Your task to perform on an android device: toggle show notifications on the lock screen Image 0: 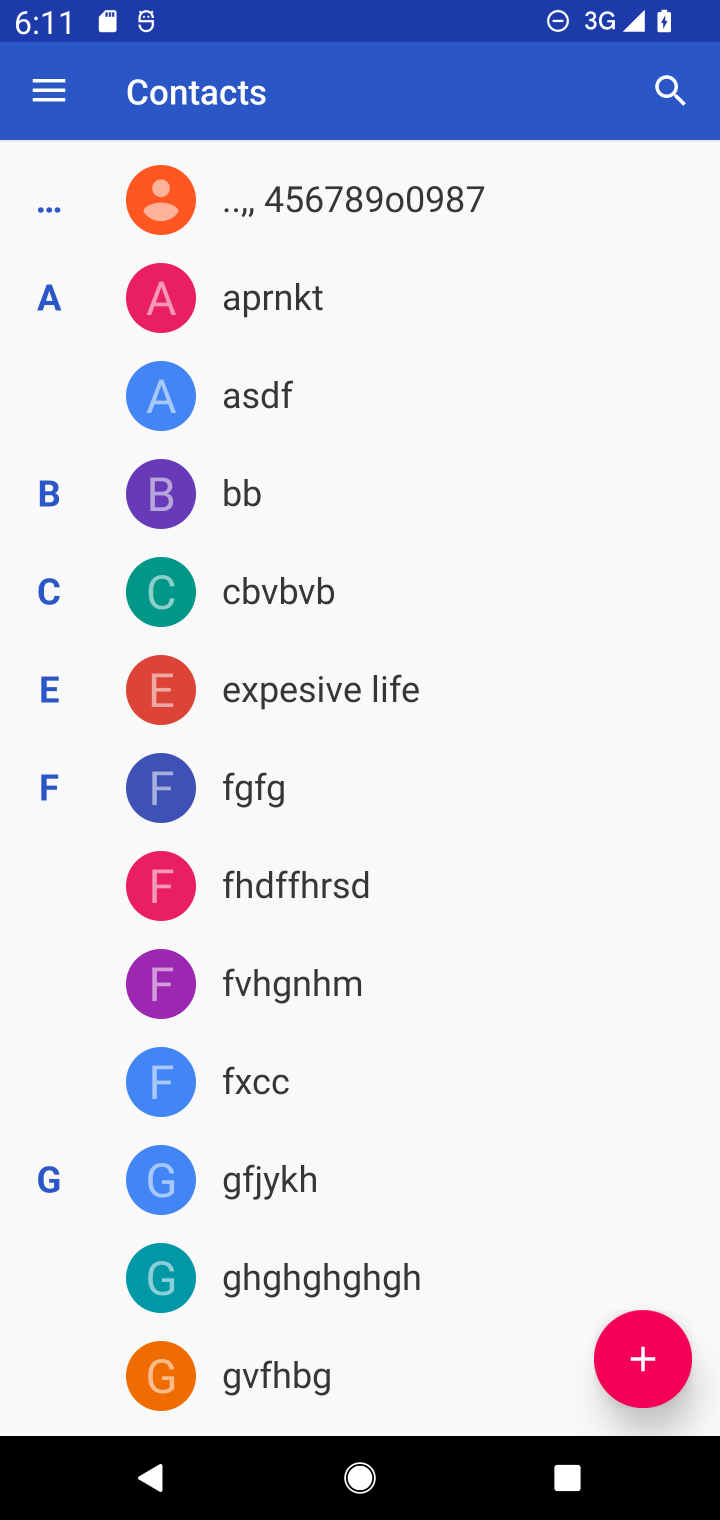
Step 0: press home button
Your task to perform on an android device: toggle show notifications on the lock screen Image 1: 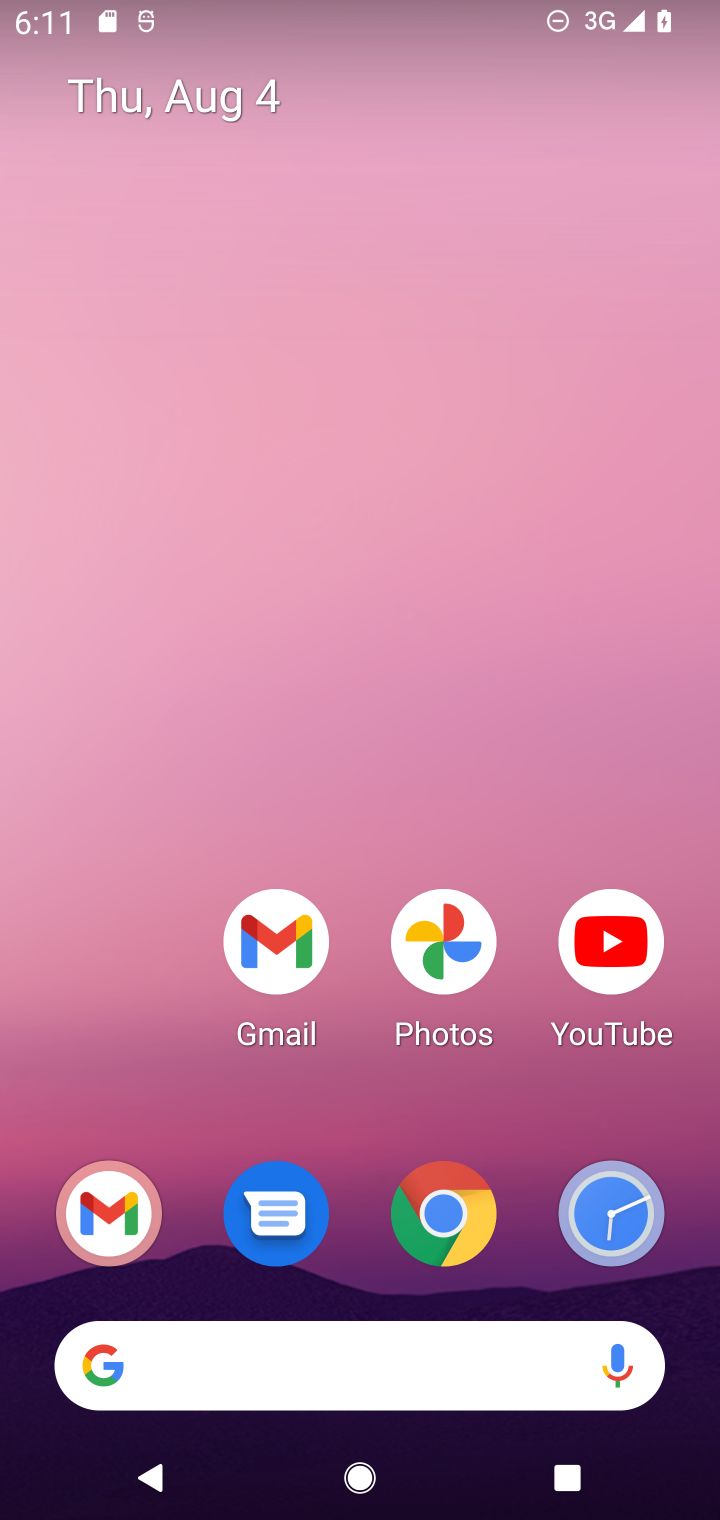
Step 1: press home button
Your task to perform on an android device: toggle show notifications on the lock screen Image 2: 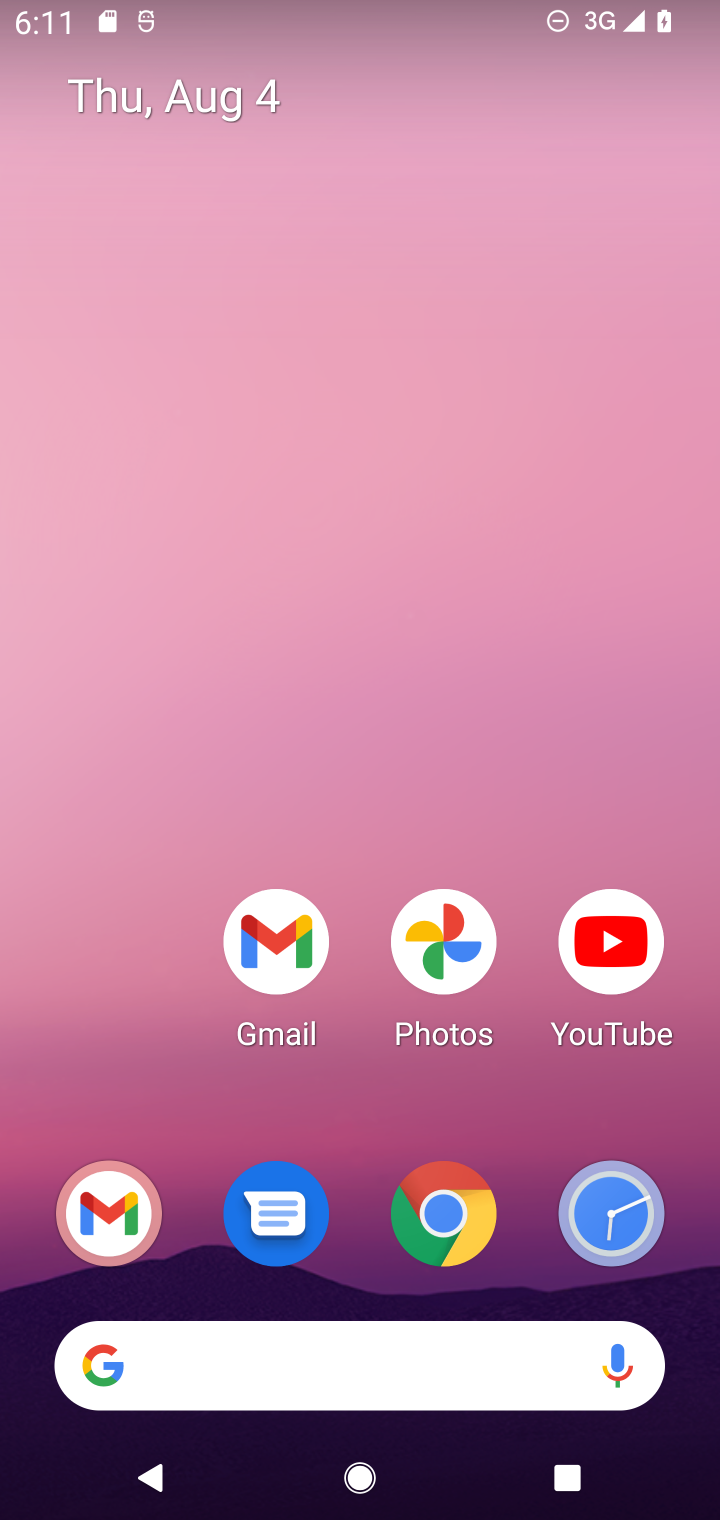
Step 2: drag from (186, 1107) to (127, 405)
Your task to perform on an android device: toggle show notifications on the lock screen Image 3: 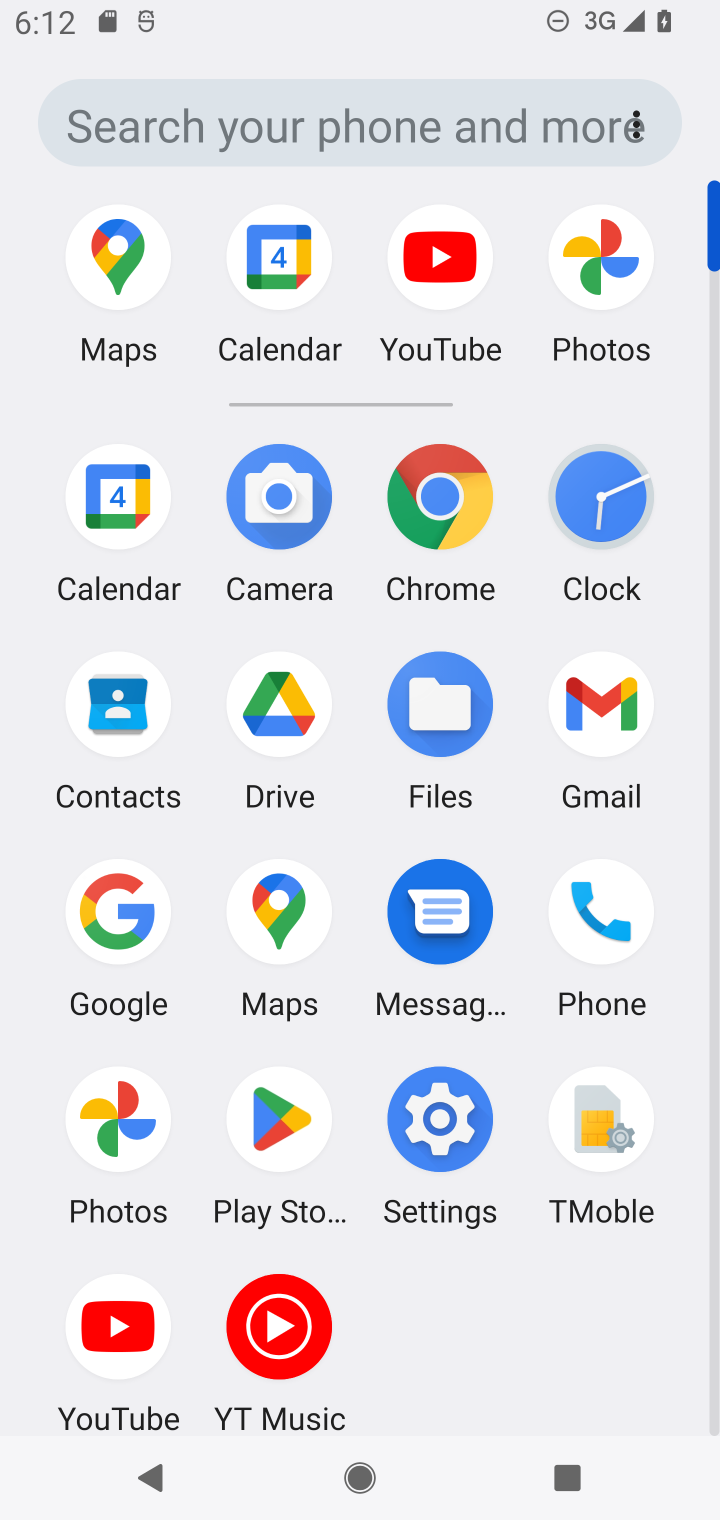
Step 3: click (448, 1130)
Your task to perform on an android device: toggle show notifications on the lock screen Image 4: 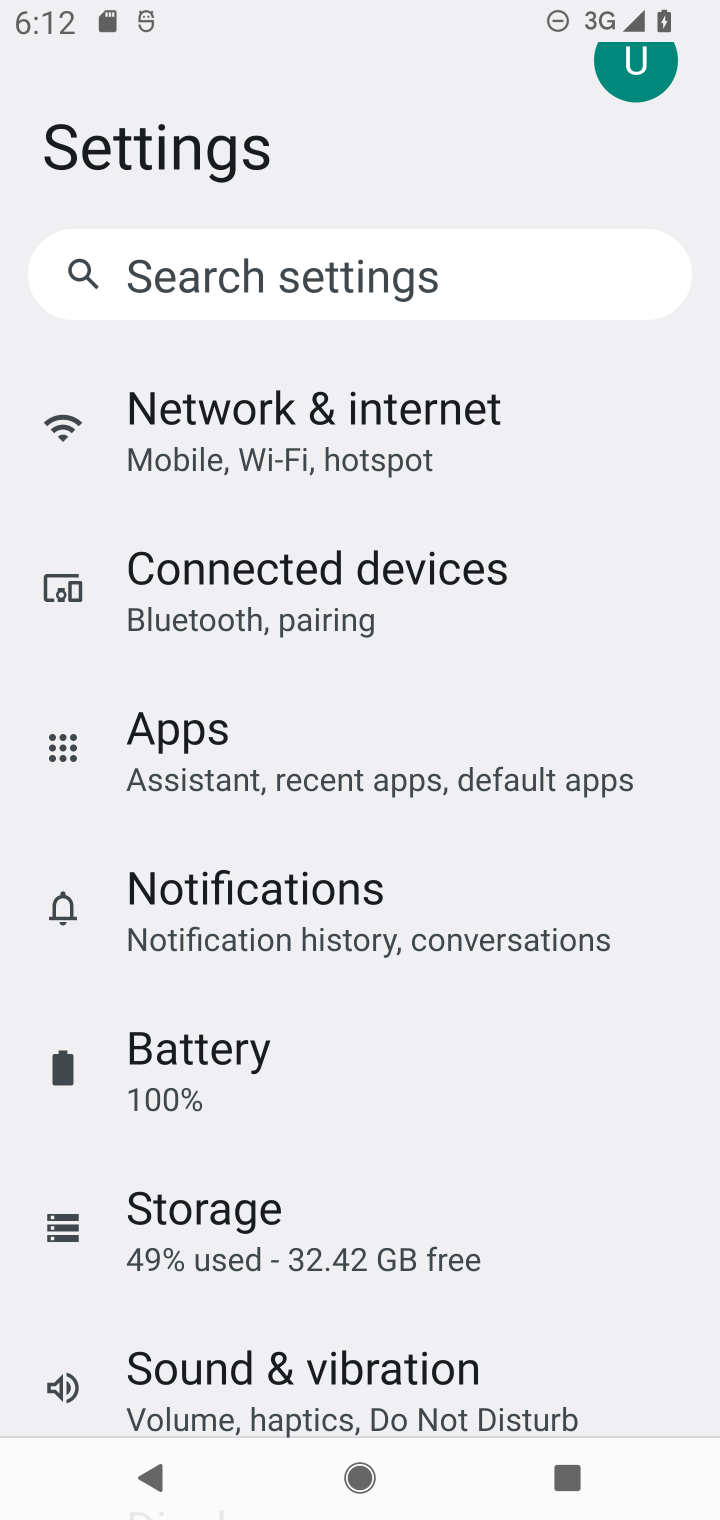
Step 4: drag from (588, 1180) to (646, 876)
Your task to perform on an android device: toggle show notifications on the lock screen Image 5: 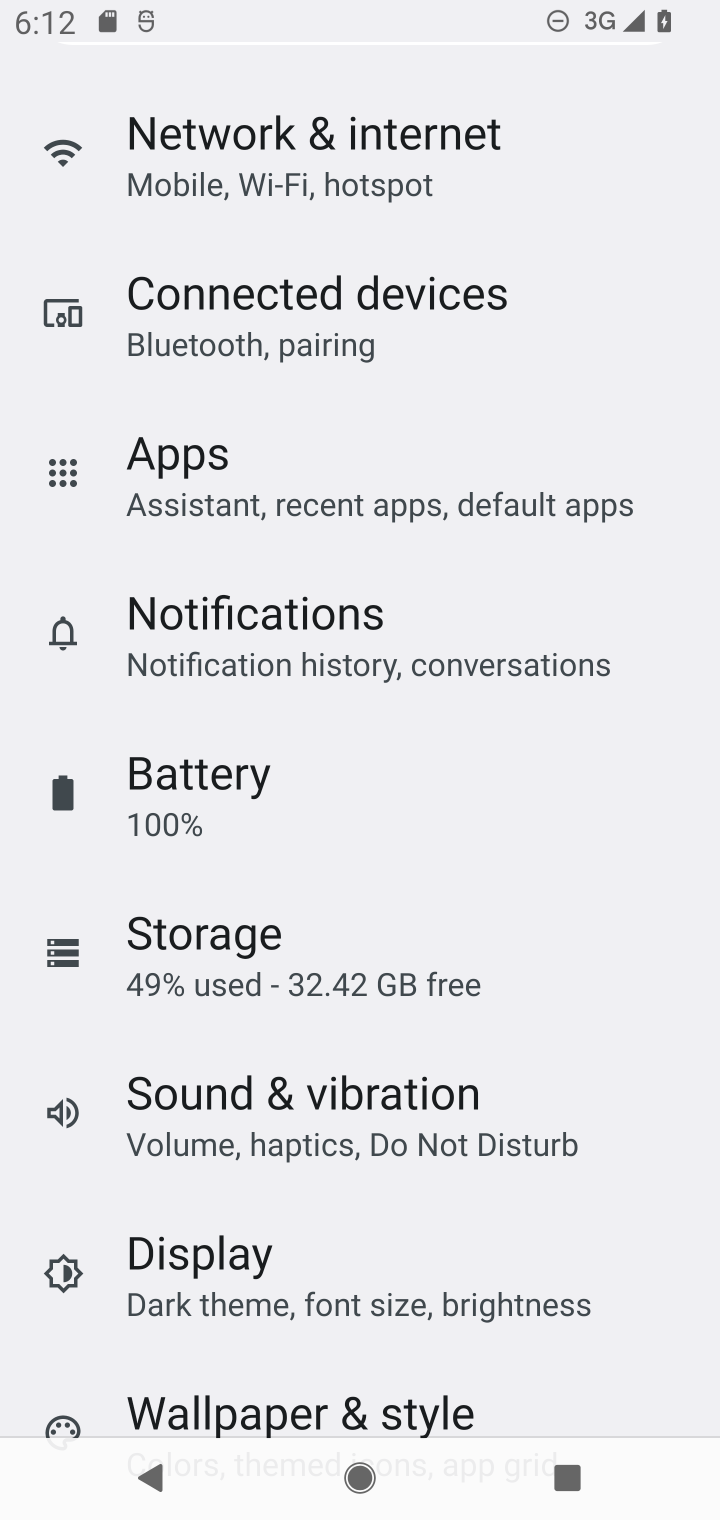
Step 5: drag from (634, 1316) to (630, 949)
Your task to perform on an android device: toggle show notifications on the lock screen Image 6: 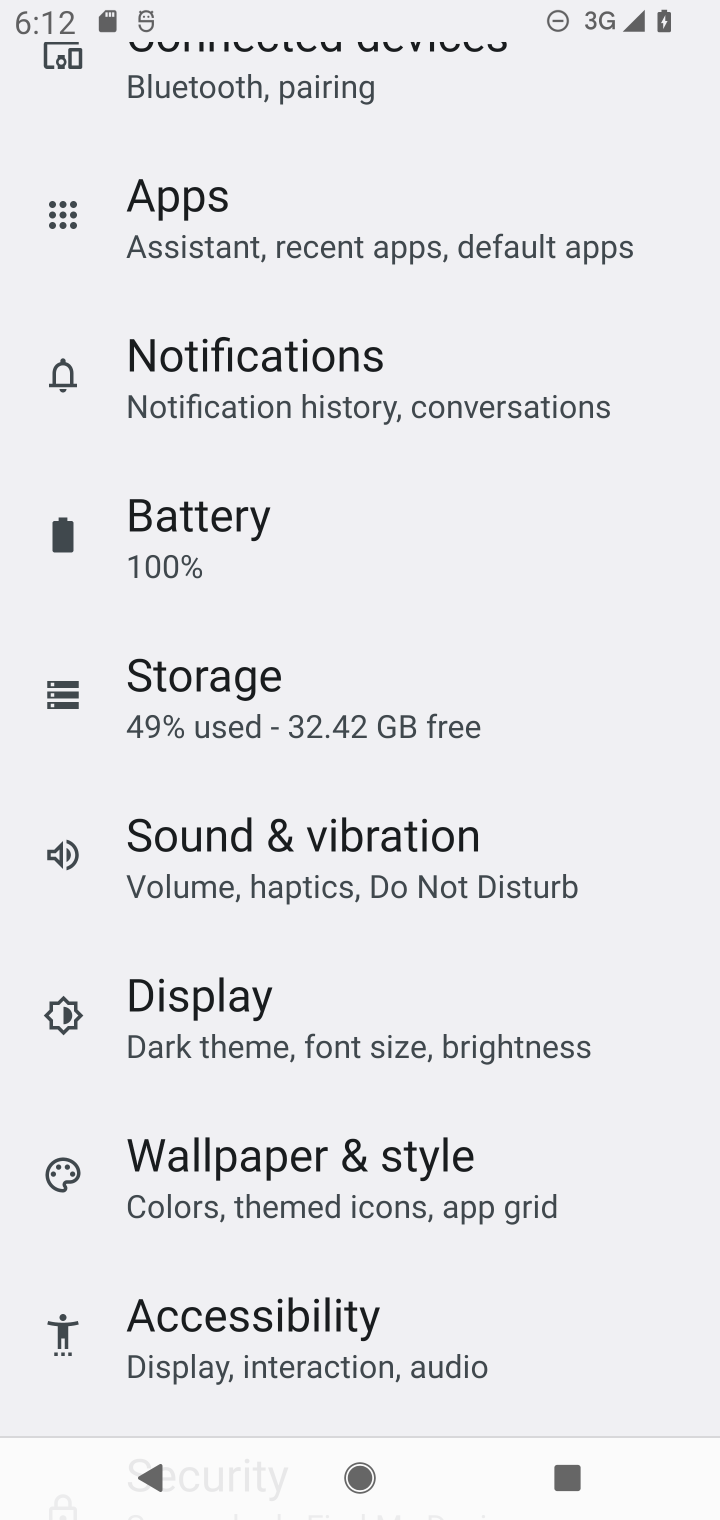
Step 6: drag from (620, 1329) to (623, 975)
Your task to perform on an android device: toggle show notifications on the lock screen Image 7: 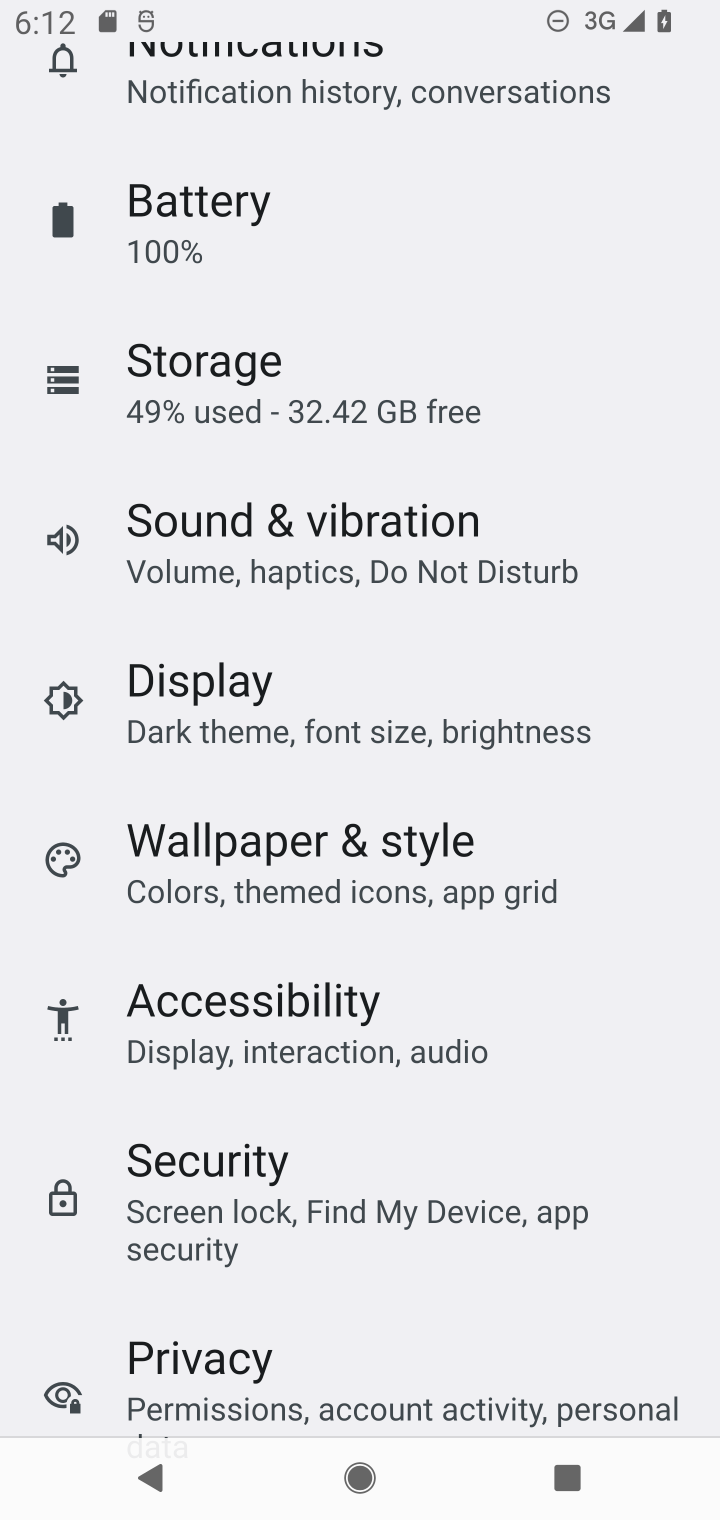
Step 7: drag from (627, 1310) to (633, 1010)
Your task to perform on an android device: toggle show notifications on the lock screen Image 8: 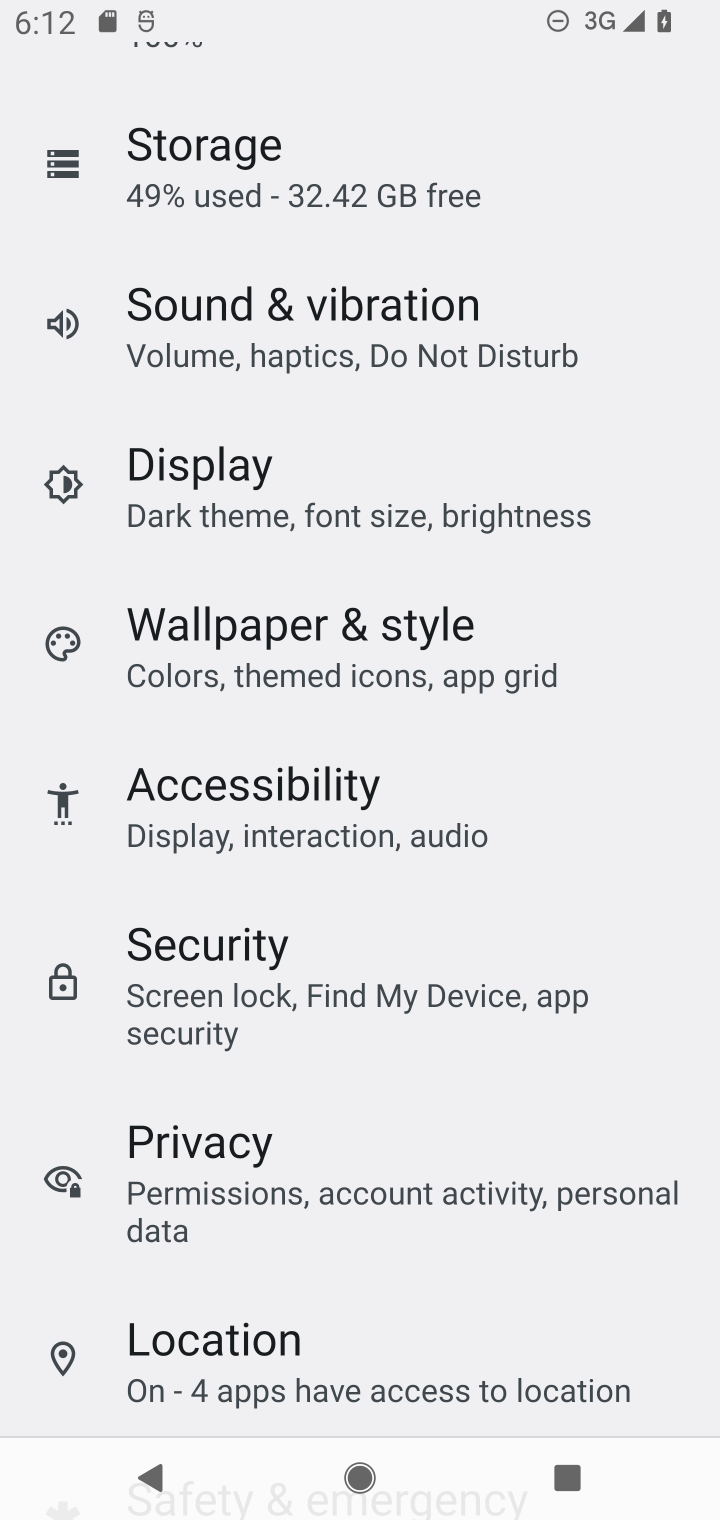
Step 8: drag from (645, 1296) to (630, 990)
Your task to perform on an android device: toggle show notifications on the lock screen Image 9: 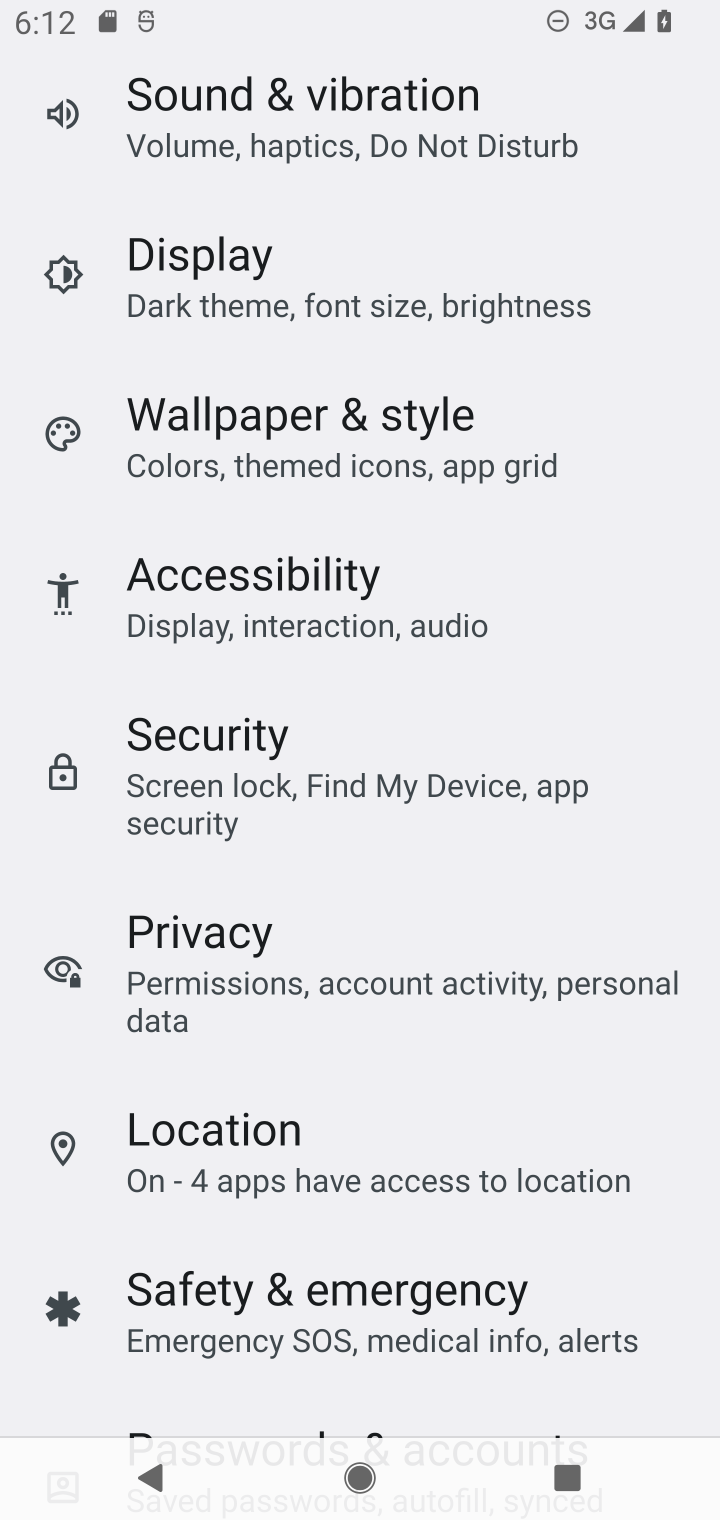
Step 9: drag from (639, 1341) to (625, 1002)
Your task to perform on an android device: toggle show notifications on the lock screen Image 10: 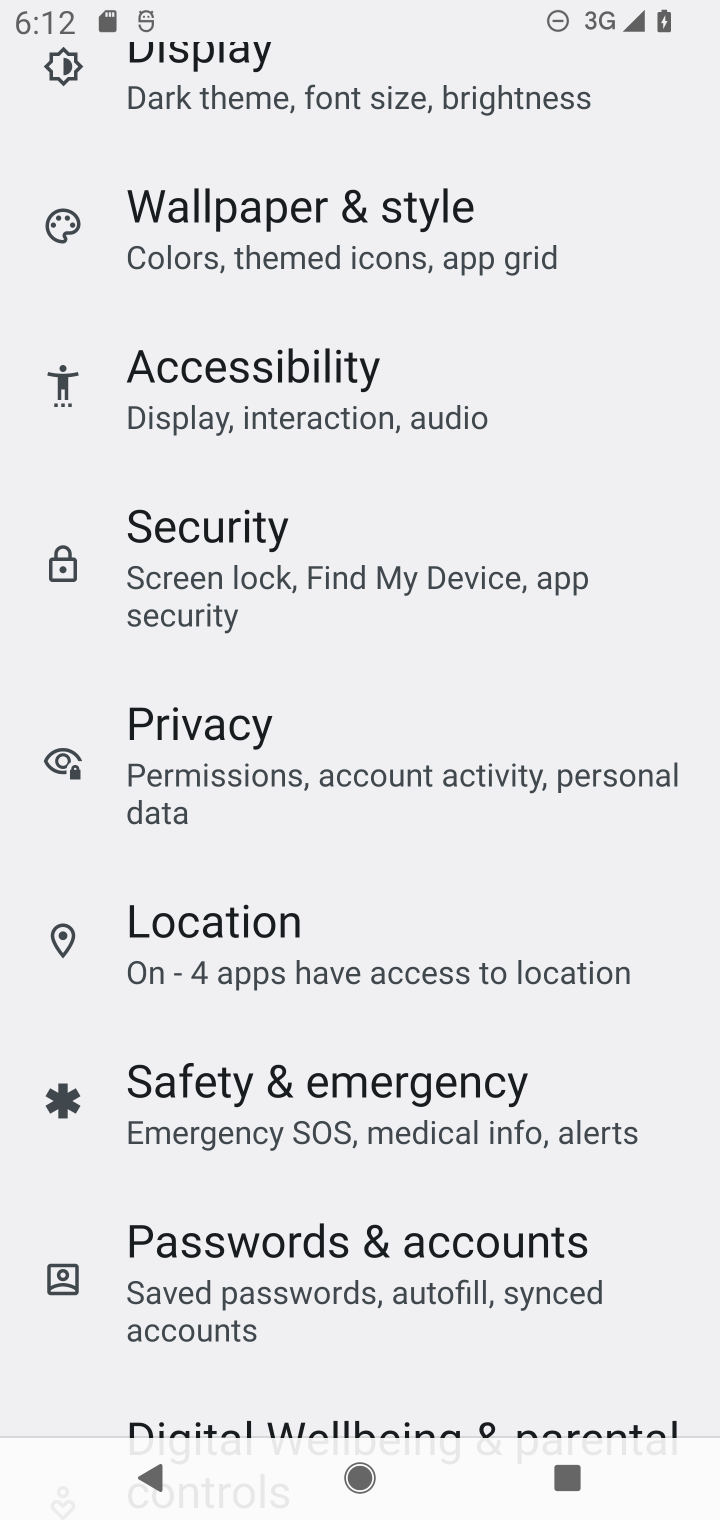
Step 10: drag from (660, 547) to (650, 904)
Your task to perform on an android device: toggle show notifications on the lock screen Image 11: 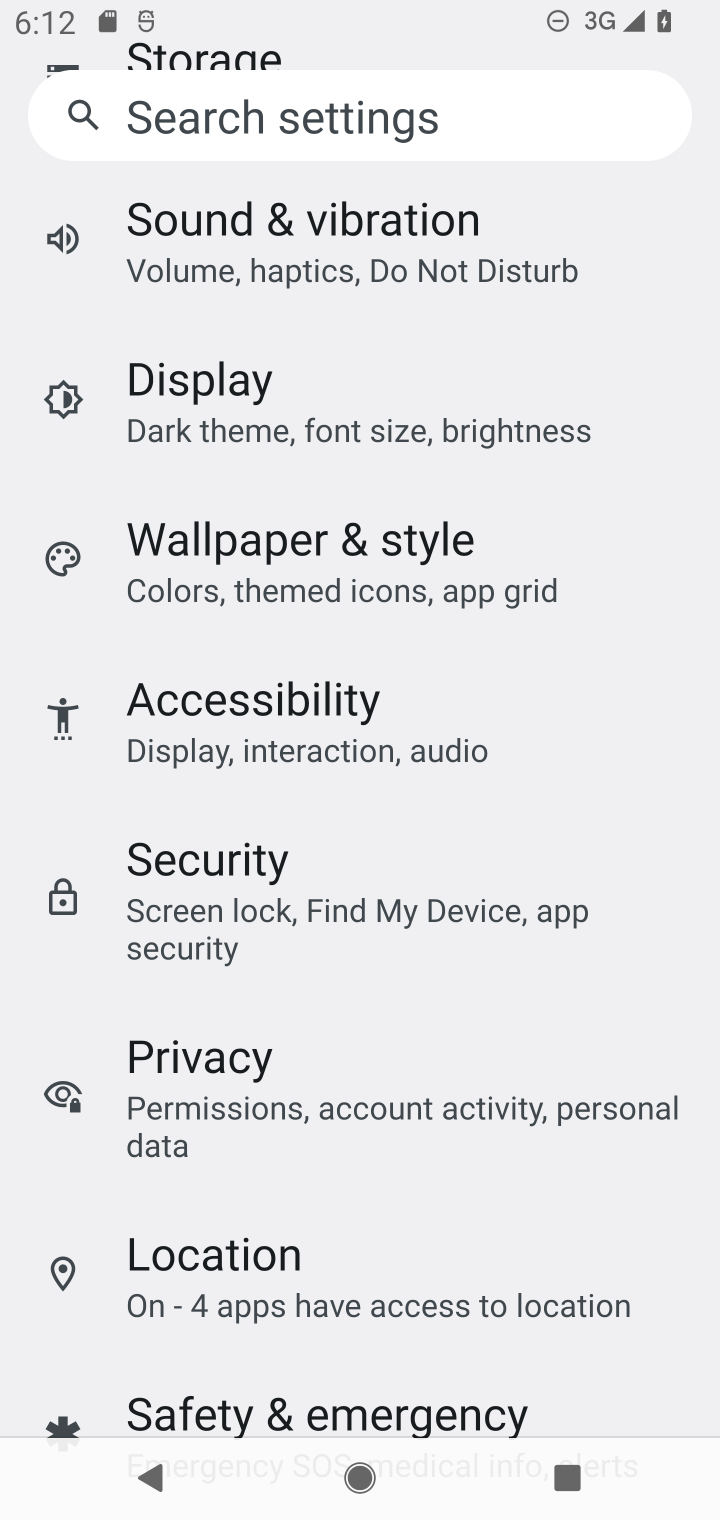
Step 11: drag from (626, 540) to (622, 900)
Your task to perform on an android device: toggle show notifications on the lock screen Image 12: 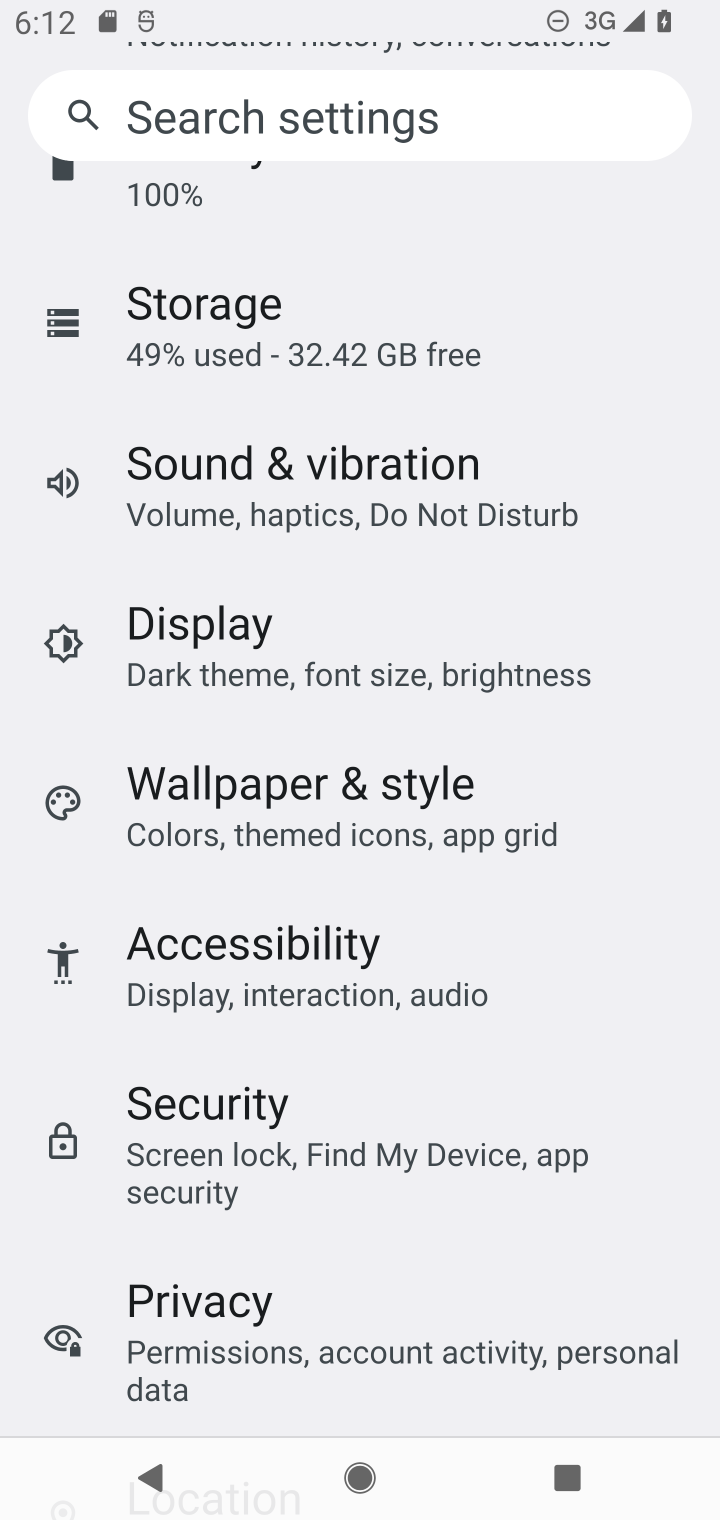
Step 12: drag from (611, 488) to (609, 891)
Your task to perform on an android device: toggle show notifications on the lock screen Image 13: 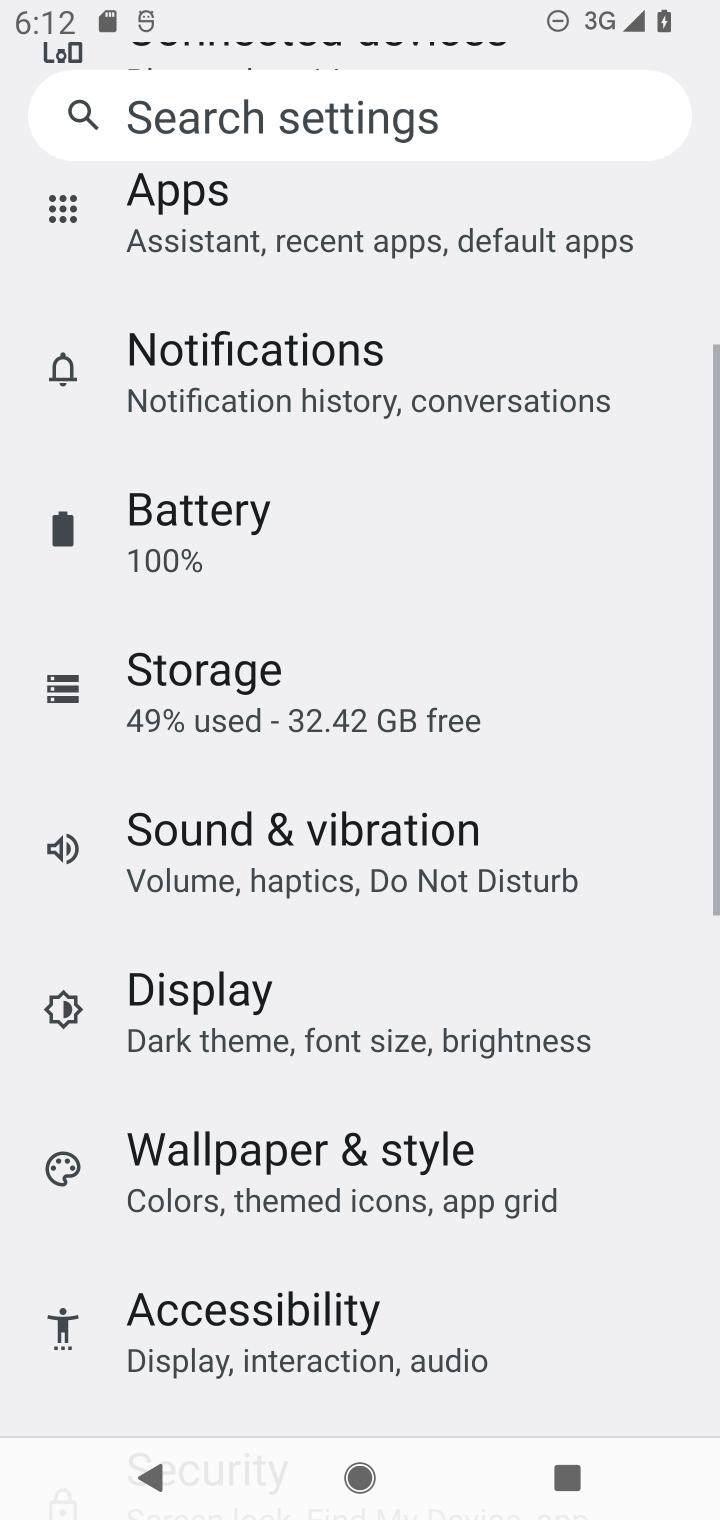
Step 13: click (506, 397)
Your task to perform on an android device: toggle show notifications on the lock screen Image 14: 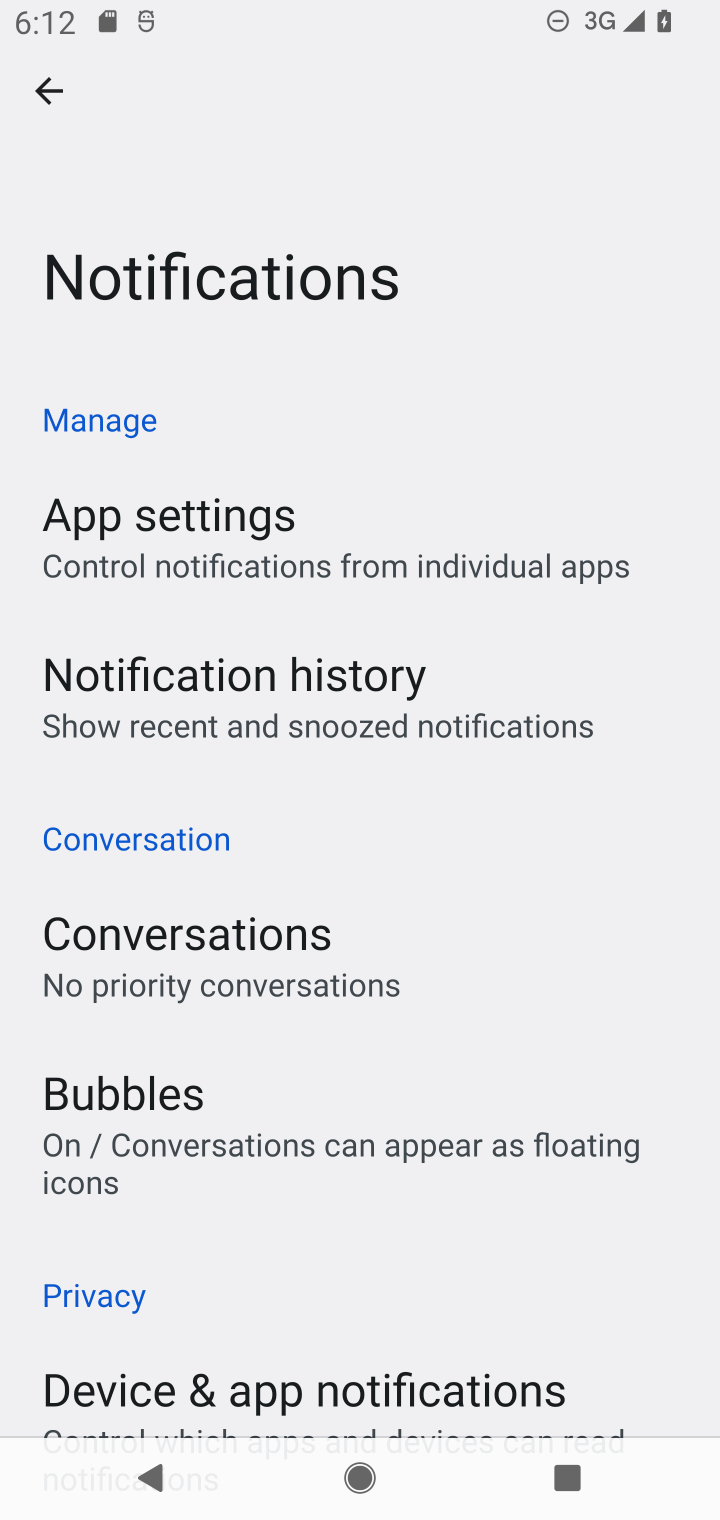
Step 14: drag from (532, 909) to (512, 647)
Your task to perform on an android device: toggle show notifications on the lock screen Image 15: 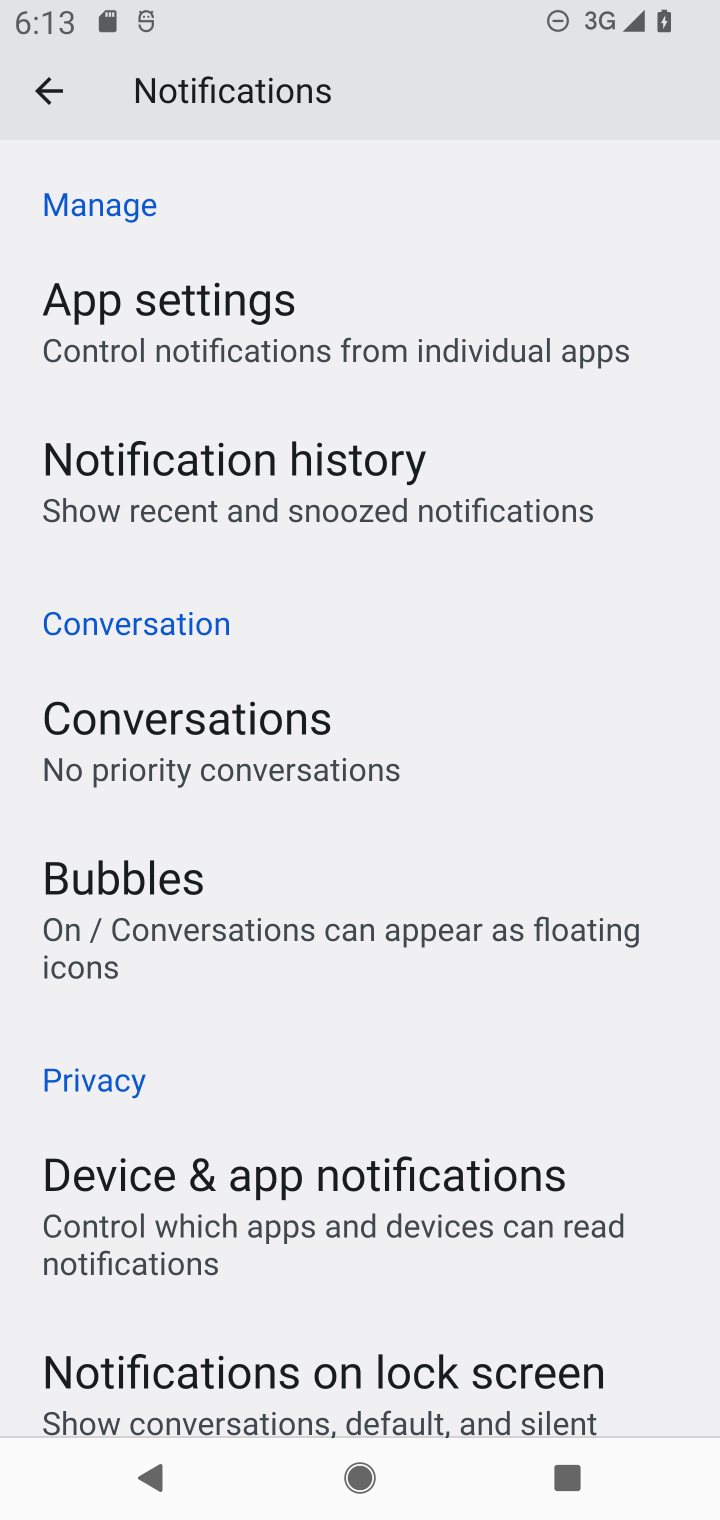
Step 15: drag from (570, 1076) to (552, 686)
Your task to perform on an android device: toggle show notifications on the lock screen Image 16: 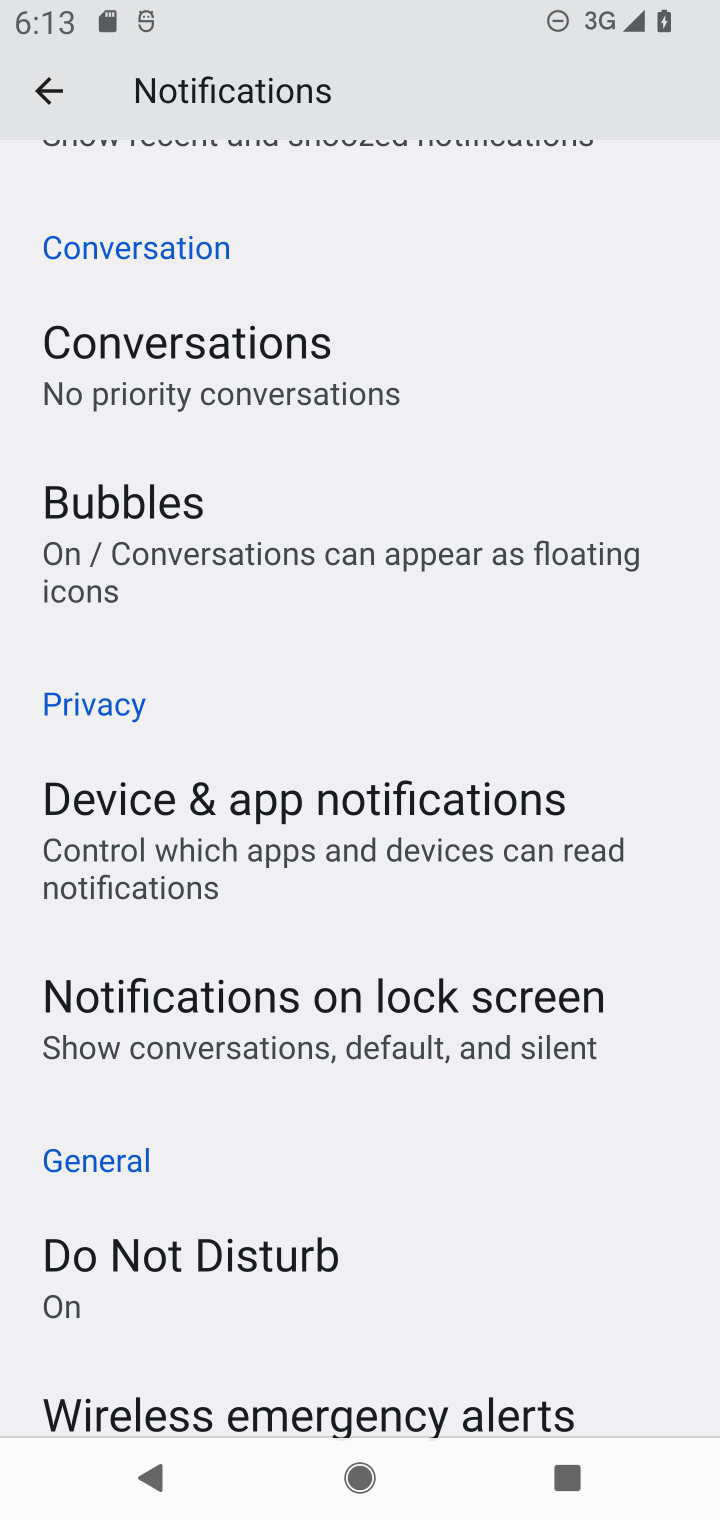
Step 16: click (570, 1039)
Your task to perform on an android device: toggle show notifications on the lock screen Image 17: 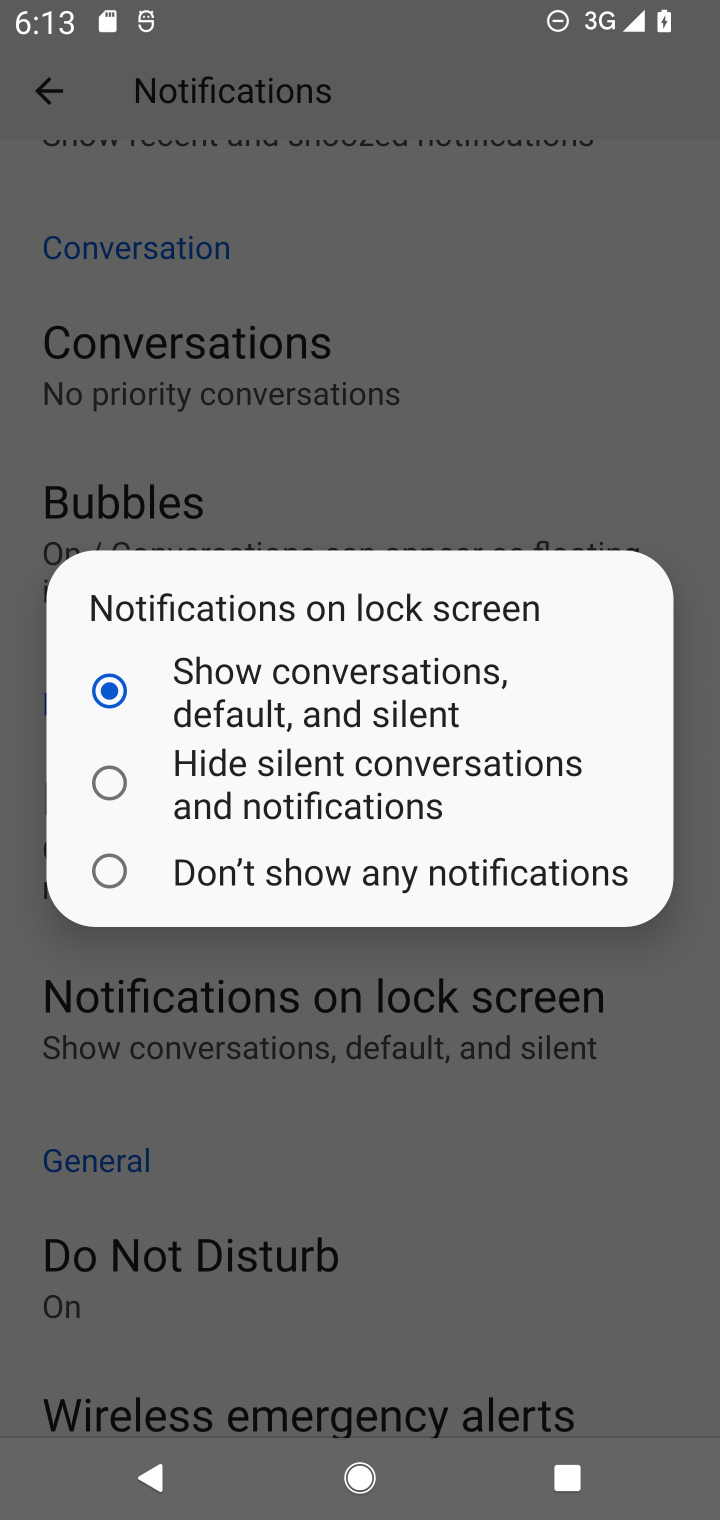
Step 17: click (101, 783)
Your task to perform on an android device: toggle show notifications on the lock screen Image 18: 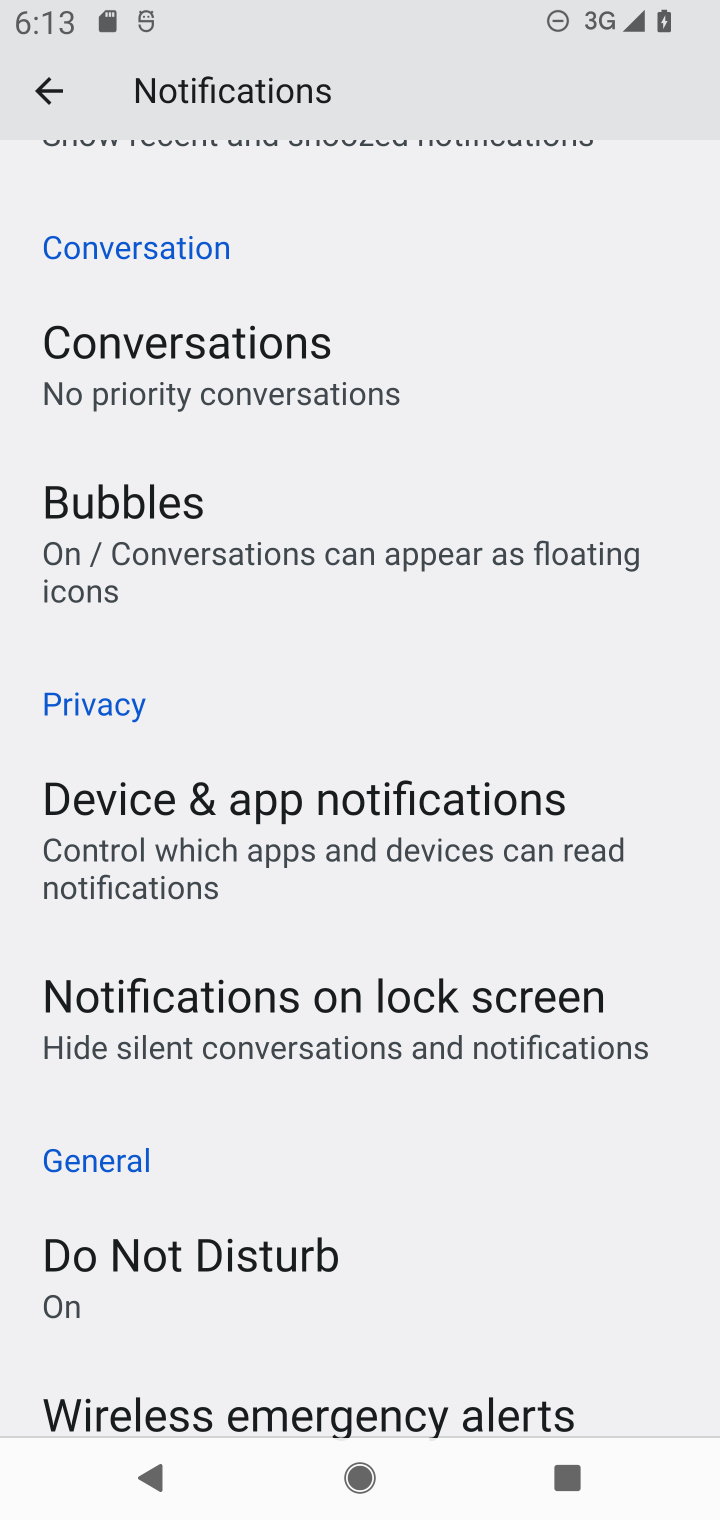
Step 18: task complete